Your task to perform on an android device: open a new tab in the chrome app Image 0: 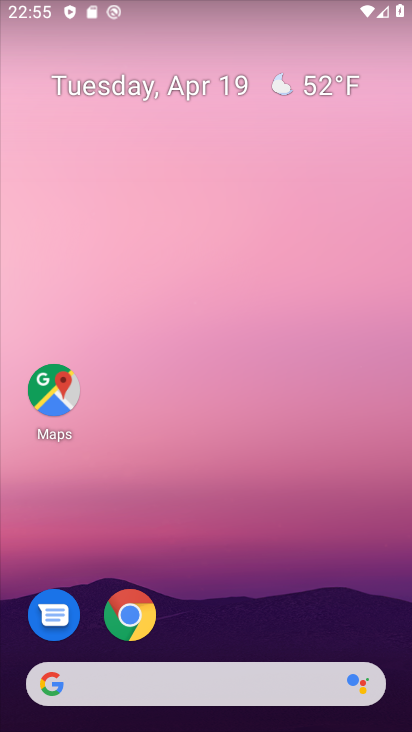
Step 0: click (127, 613)
Your task to perform on an android device: open a new tab in the chrome app Image 1: 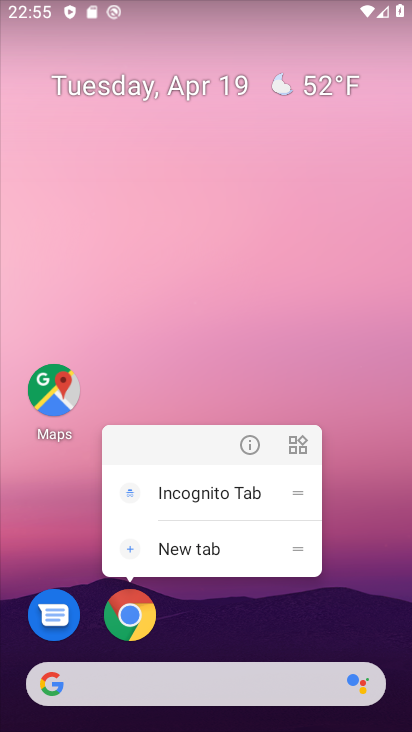
Step 1: click (127, 613)
Your task to perform on an android device: open a new tab in the chrome app Image 2: 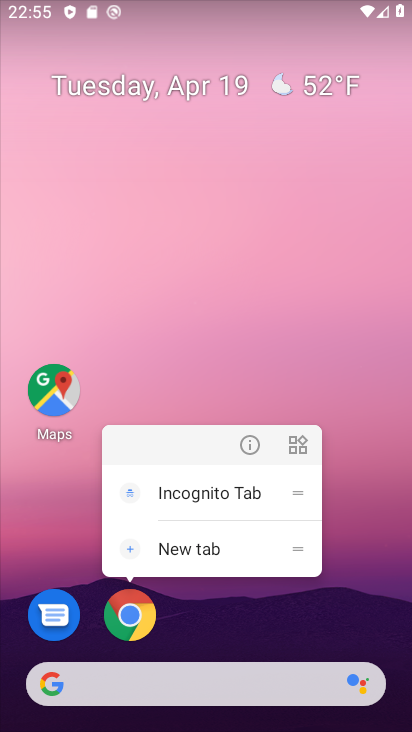
Step 2: click (127, 613)
Your task to perform on an android device: open a new tab in the chrome app Image 3: 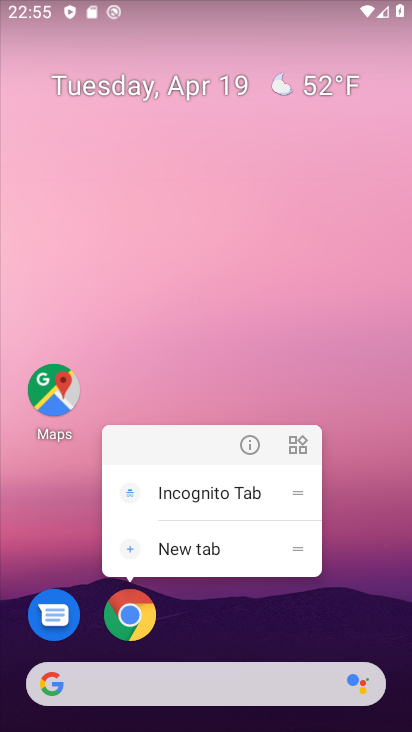
Step 3: click (127, 613)
Your task to perform on an android device: open a new tab in the chrome app Image 4: 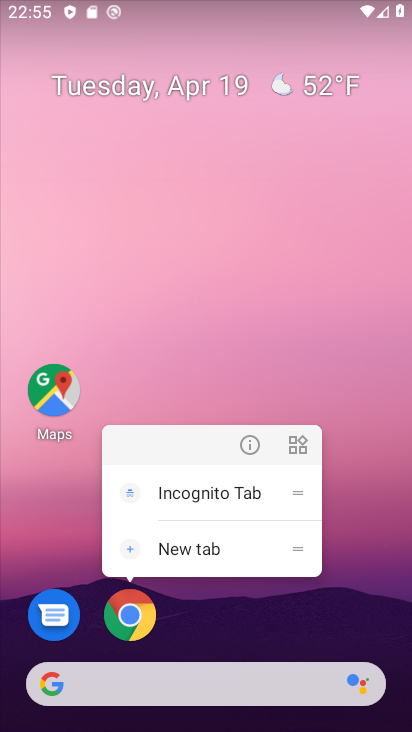
Step 4: click (127, 613)
Your task to perform on an android device: open a new tab in the chrome app Image 5: 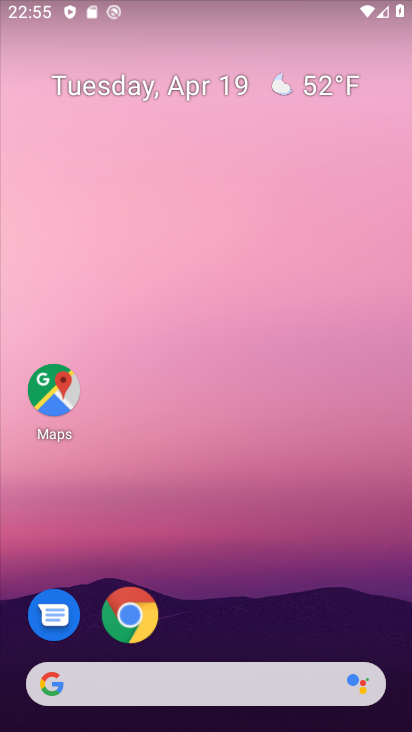
Step 5: click (127, 613)
Your task to perform on an android device: open a new tab in the chrome app Image 6: 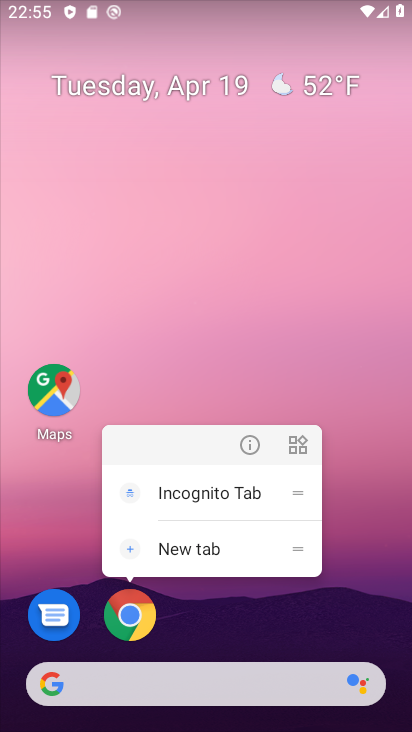
Step 6: click (127, 613)
Your task to perform on an android device: open a new tab in the chrome app Image 7: 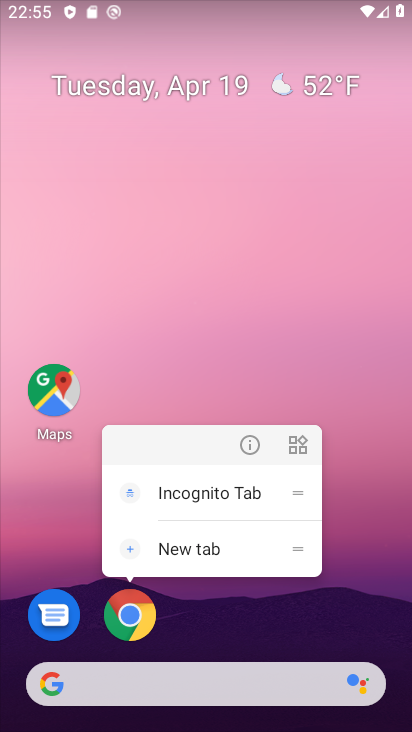
Step 7: click (127, 613)
Your task to perform on an android device: open a new tab in the chrome app Image 8: 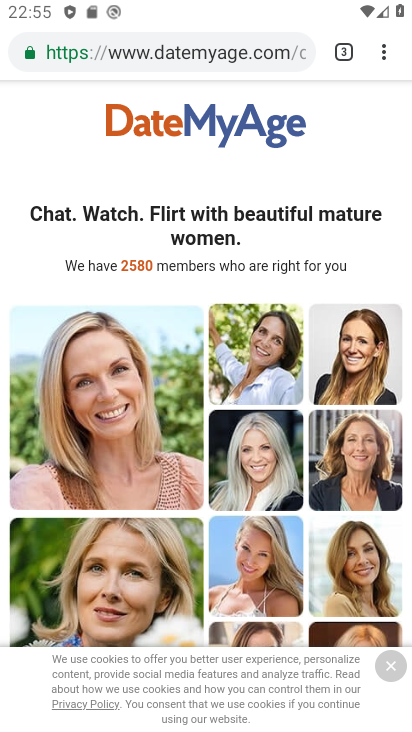
Step 8: click (384, 52)
Your task to perform on an android device: open a new tab in the chrome app Image 9: 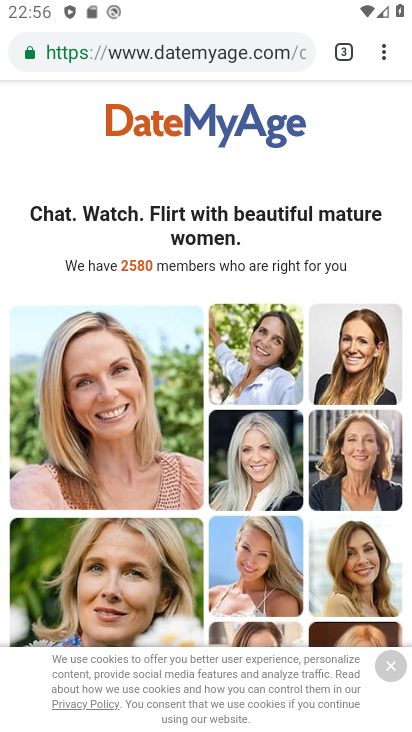
Step 9: click (385, 55)
Your task to perform on an android device: open a new tab in the chrome app Image 10: 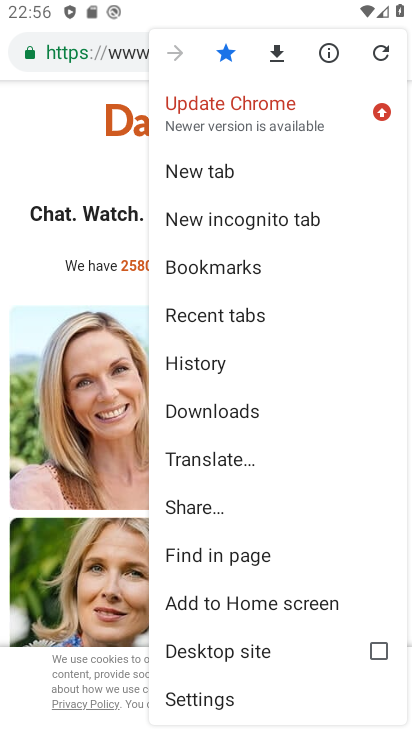
Step 10: click (208, 174)
Your task to perform on an android device: open a new tab in the chrome app Image 11: 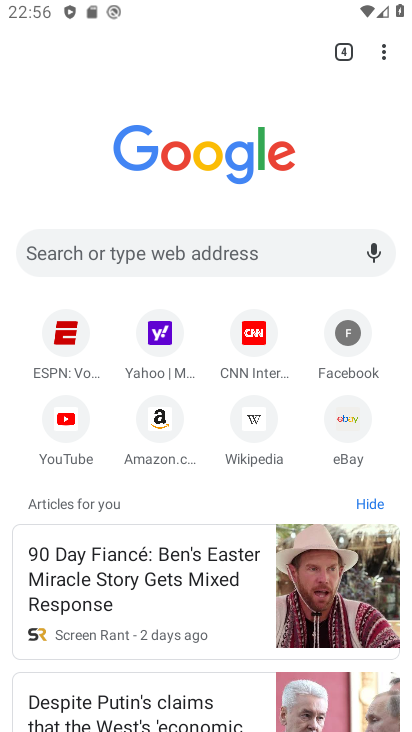
Step 11: task complete